Your task to perform on an android device: turn on the 24-hour format for clock Image 0: 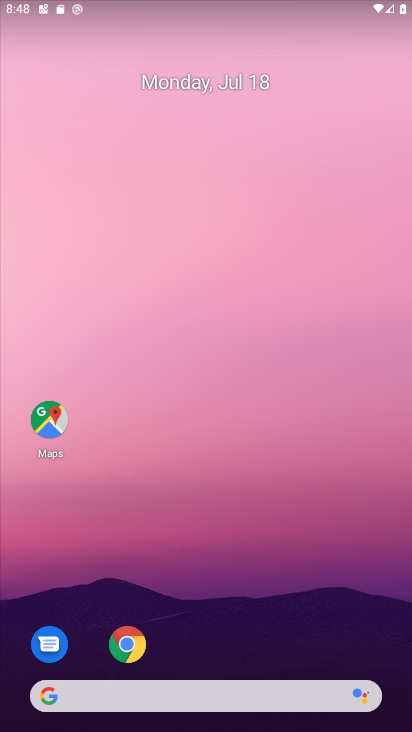
Step 0: drag from (223, 646) to (212, 43)
Your task to perform on an android device: turn on the 24-hour format for clock Image 1: 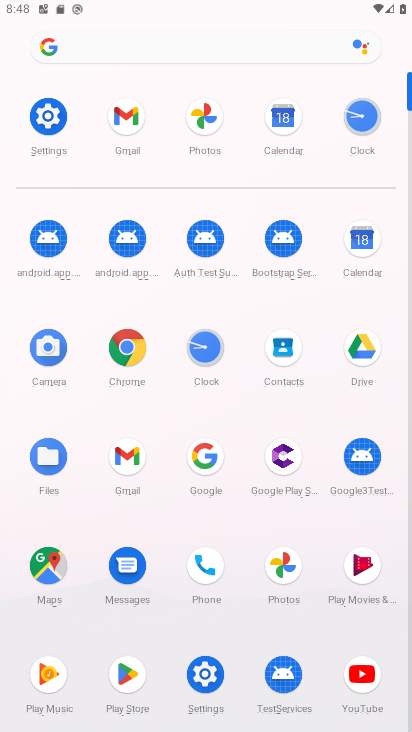
Step 1: click (359, 140)
Your task to perform on an android device: turn on the 24-hour format for clock Image 2: 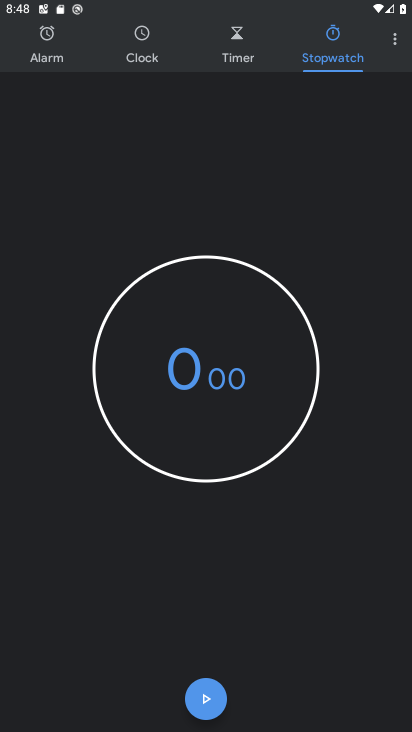
Step 2: click (397, 37)
Your task to perform on an android device: turn on the 24-hour format for clock Image 3: 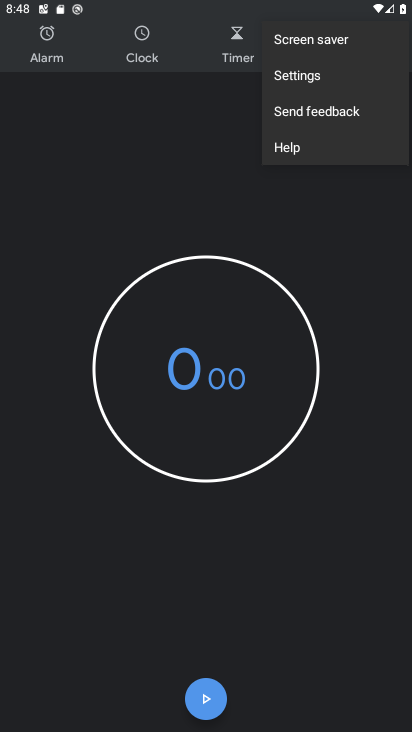
Step 3: click (338, 71)
Your task to perform on an android device: turn on the 24-hour format for clock Image 4: 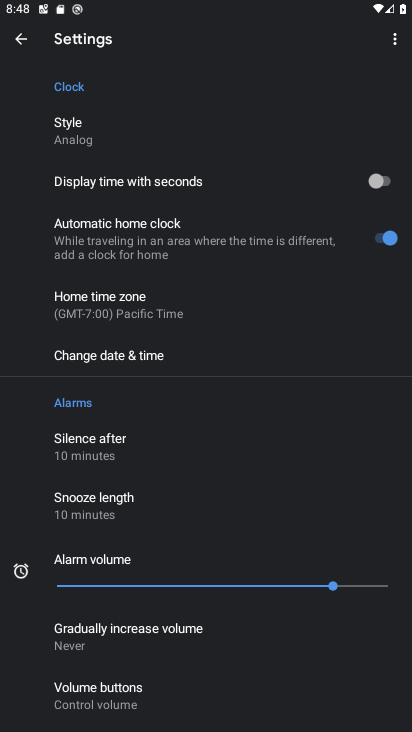
Step 4: click (125, 348)
Your task to perform on an android device: turn on the 24-hour format for clock Image 5: 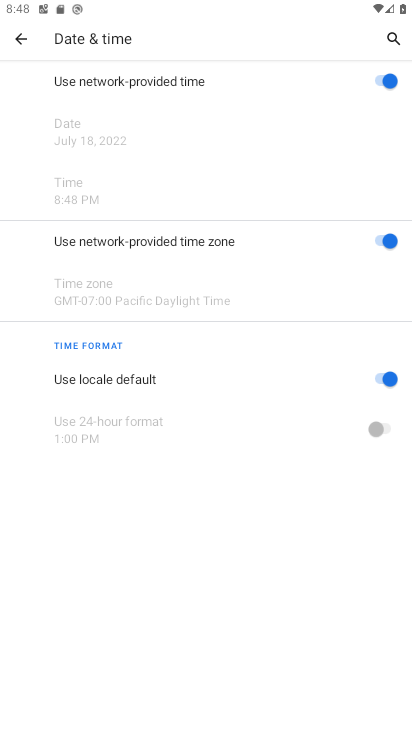
Step 5: click (384, 377)
Your task to perform on an android device: turn on the 24-hour format for clock Image 6: 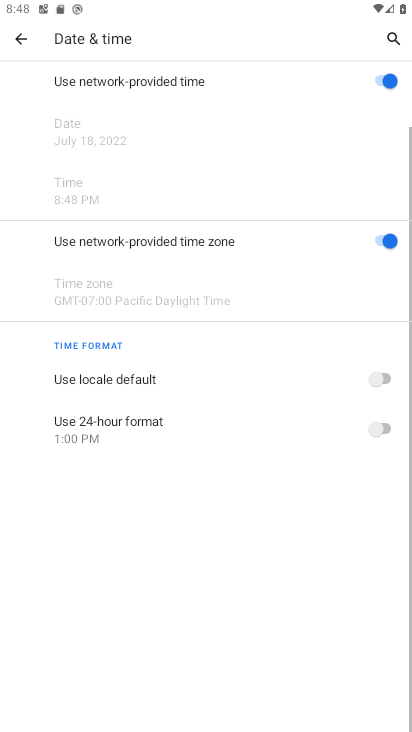
Step 6: click (382, 428)
Your task to perform on an android device: turn on the 24-hour format for clock Image 7: 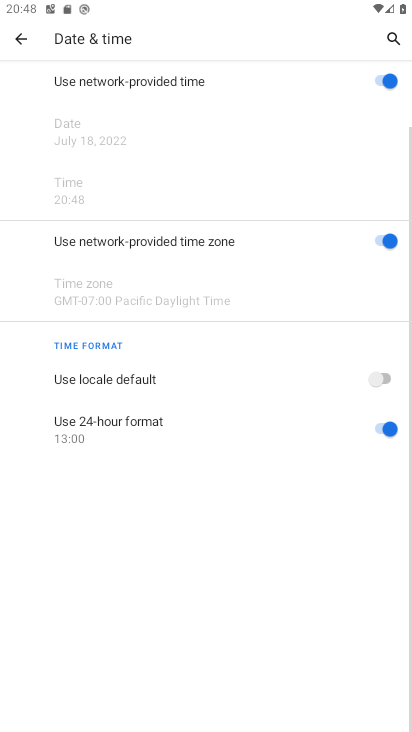
Step 7: task complete